Your task to perform on an android device: What's the weather? Image 0: 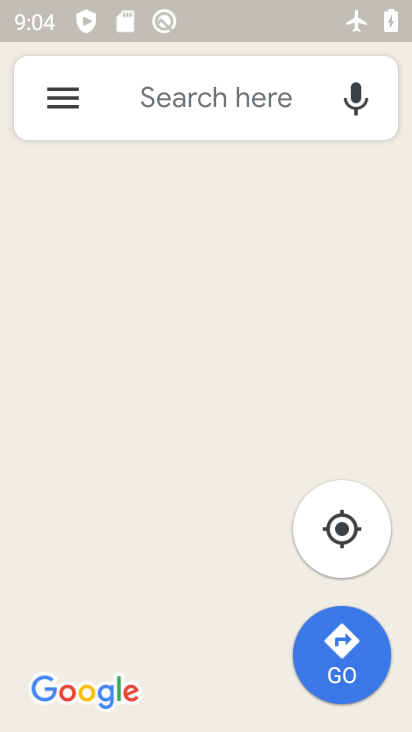
Step 0: press back button
Your task to perform on an android device: What's the weather? Image 1: 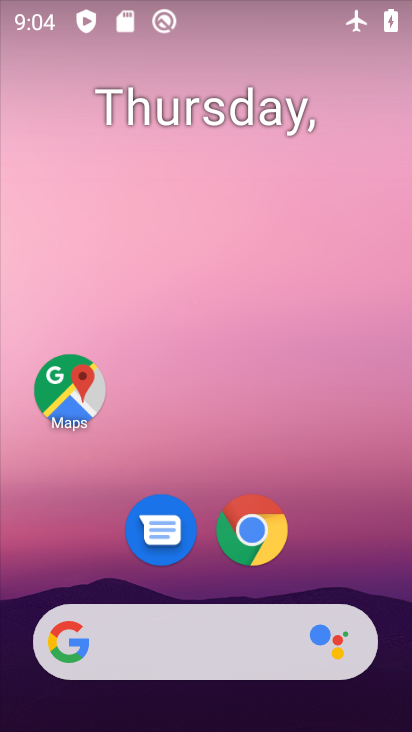
Step 1: drag from (344, 555) to (293, 34)
Your task to perform on an android device: What's the weather? Image 2: 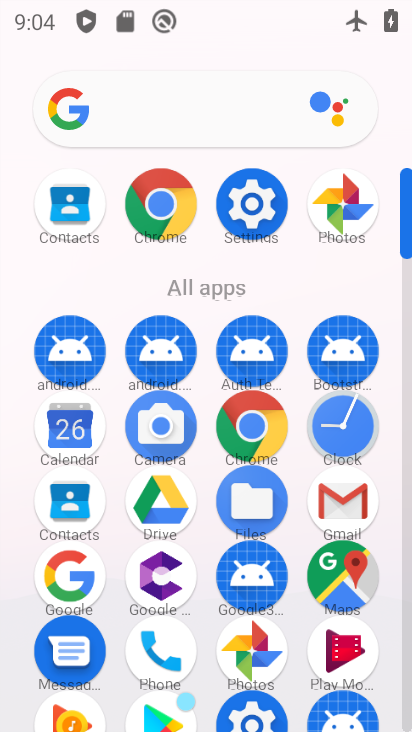
Step 2: click (158, 200)
Your task to perform on an android device: What's the weather? Image 3: 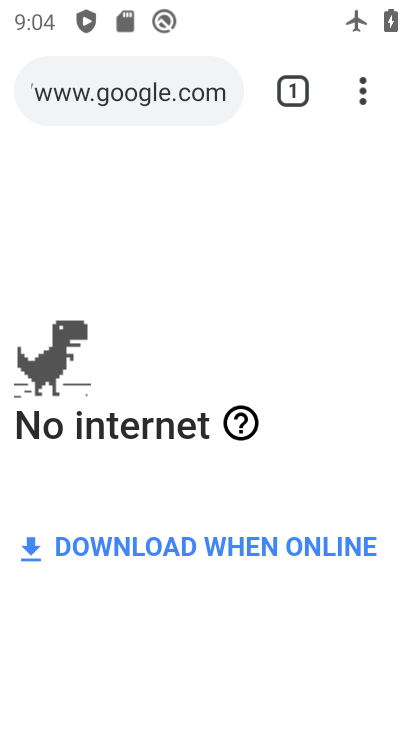
Step 3: click (130, 84)
Your task to perform on an android device: What's the weather? Image 4: 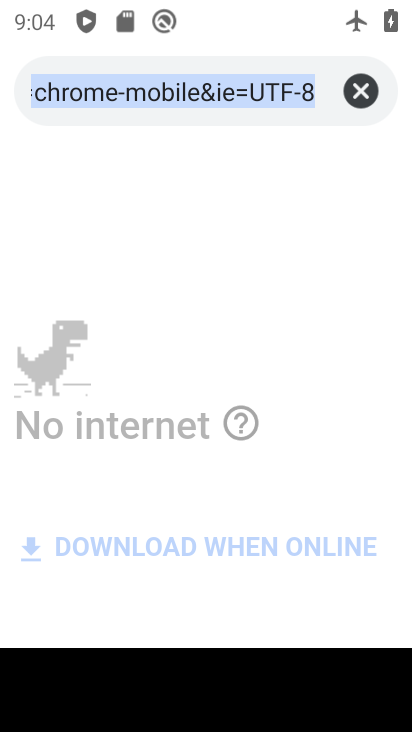
Step 4: click (357, 82)
Your task to perform on an android device: What's the weather? Image 5: 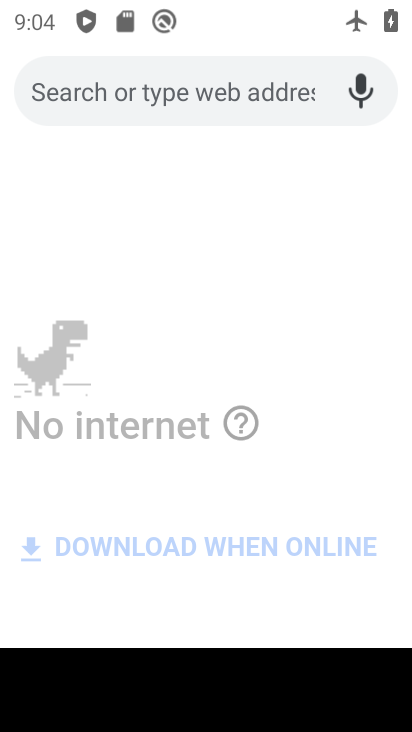
Step 5: type "What's the weather?"
Your task to perform on an android device: What's the weather? Image 6: 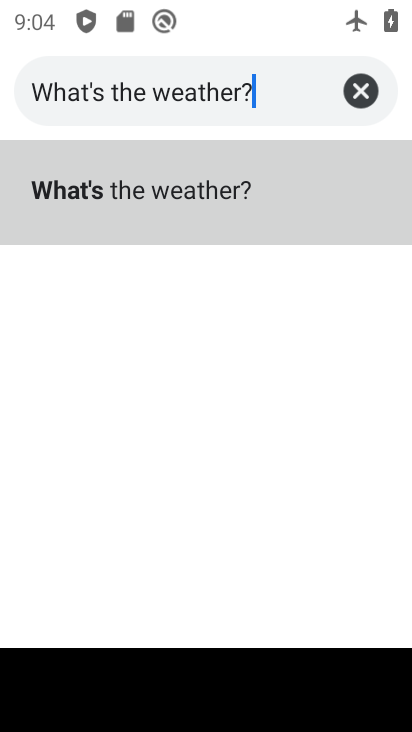
Step 6: type ""
Your task to perform on an android device: What's the weather? Image 7: 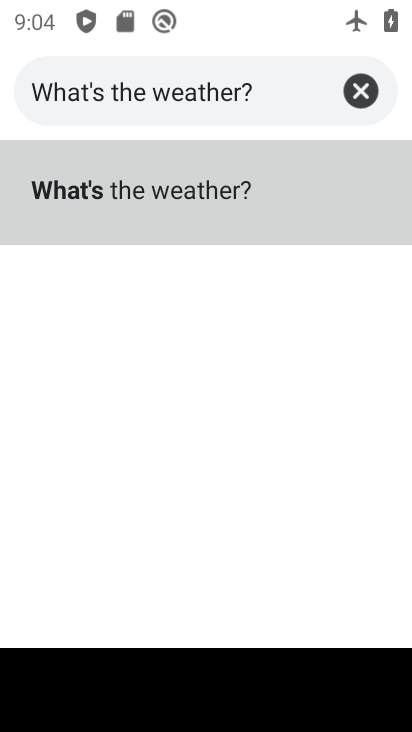
Step 7: click (171, 191)
Your task to perform on an android device: What's the weather? Image 8: 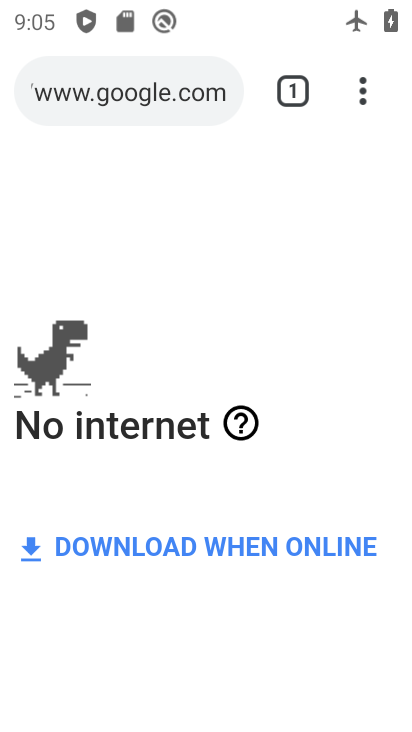
Step 8: task complete